Your task to perform on an android device: Go to privacy settings Image 0: 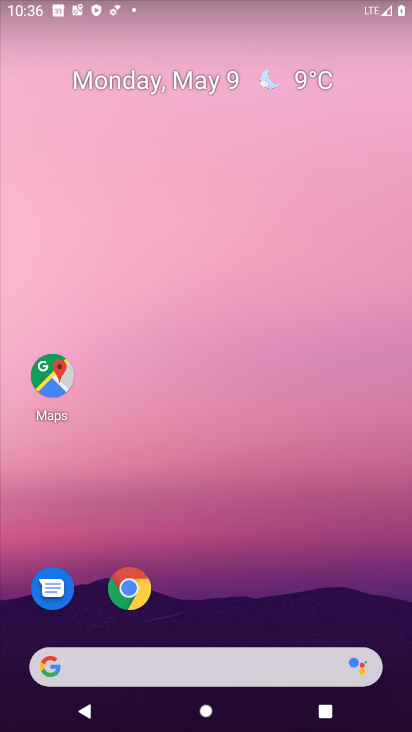
Step 0: drag from (162, 667) to (299, 47)
Your task to perform on an android device: Go to privacy settings Image 1: 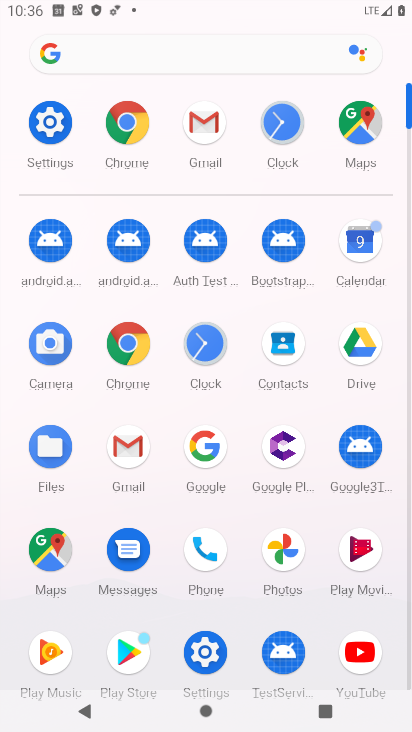
Step 1: click (41, 128)
Your task to perform on an android device: Go to privacy settings Image 2: 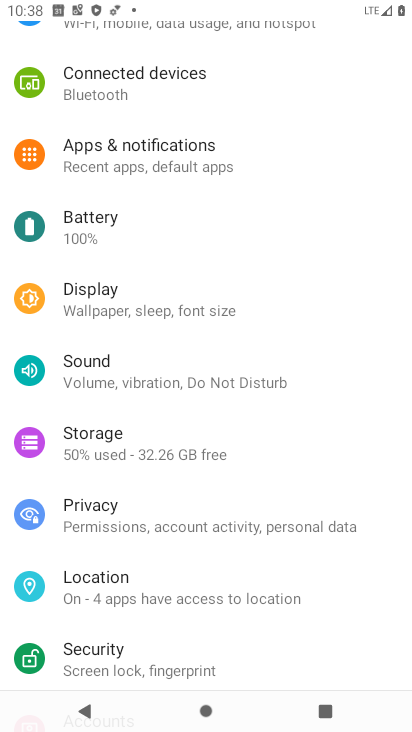
Step 2: click (116, 509)
Your task to perform on an android device: Go to privacy settings Image 3: 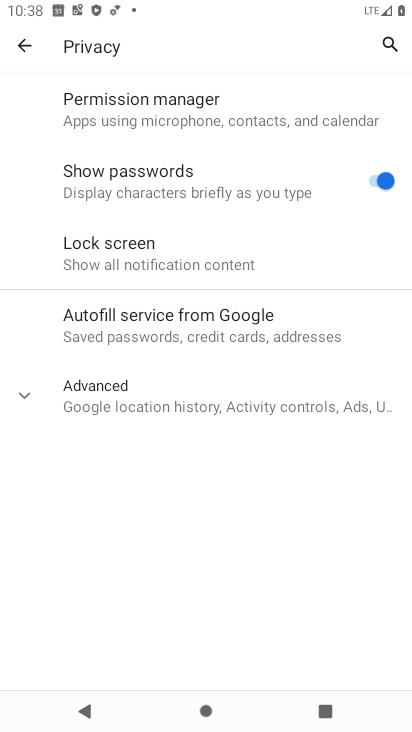
Step 3: task complete